Your task to perform on an android device: make emails show in primary in the gmail app Image 0: 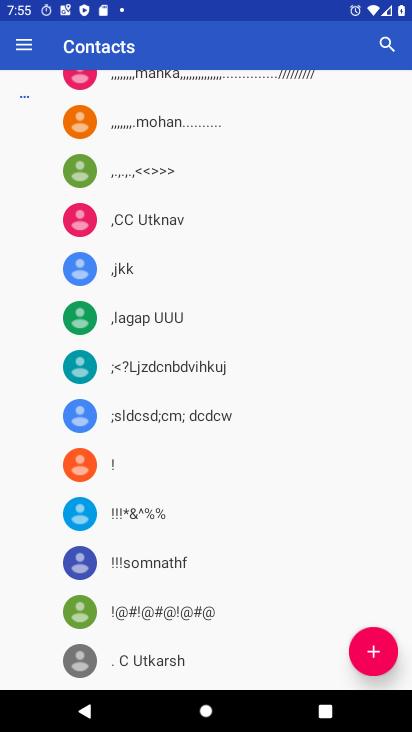
Step 0: press home button
Your task to perform on an android device: make emails show in primary in the gmail app Image 1: 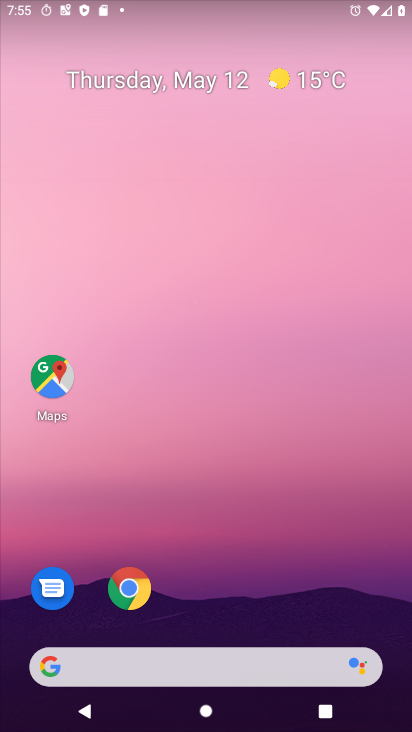
Step 1: drag from (176, 620) to (190, 264)
Your task to perform on an android device: make emails show in primary in the gmail app Image 2: 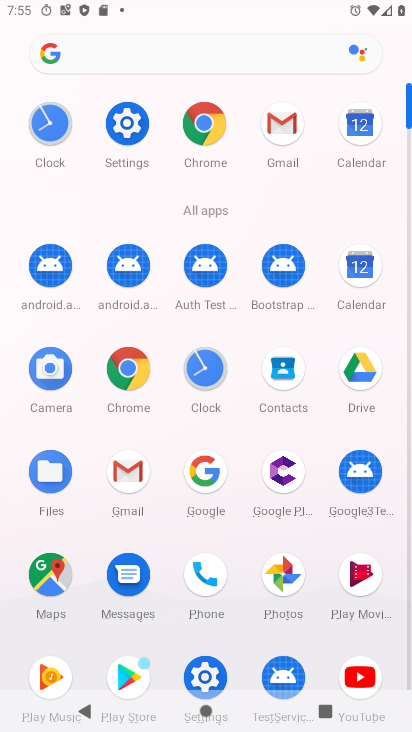
Step 2: click (278, 140)
Your task to perform on an android device: make emails show in primary in the gmail app Image 3: 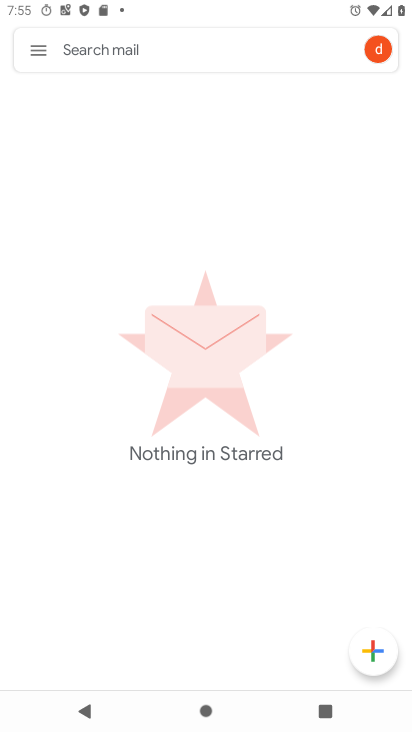
Step 3: click (31, 56)
Your task to perform on an android device: make emails show in primary in the gmail app Image 4: 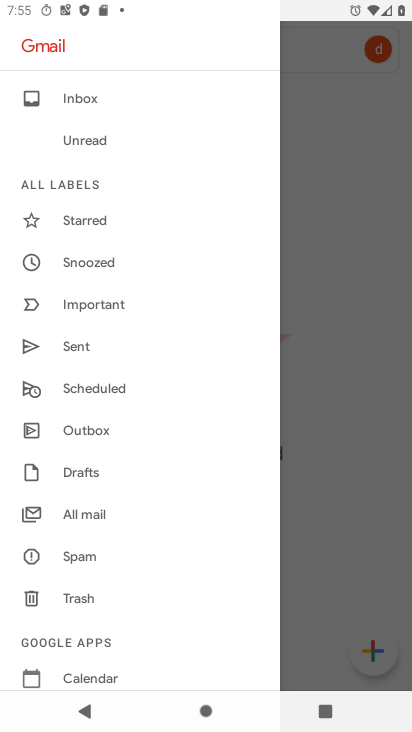
Step 4: drag from (108, 574) to (167, 185)
Your task to perform on an android device: make emails show in primary in the gmail app Image 5: 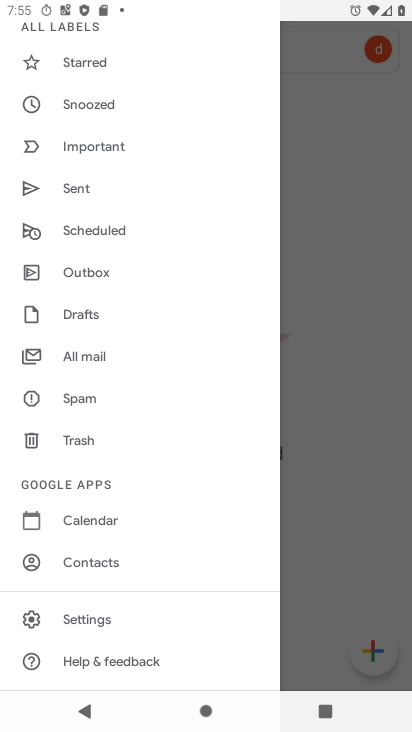
Step 5: click (83, 618)
Your task to perform on an android device: make emails show in primary in the gmail app Image 6: 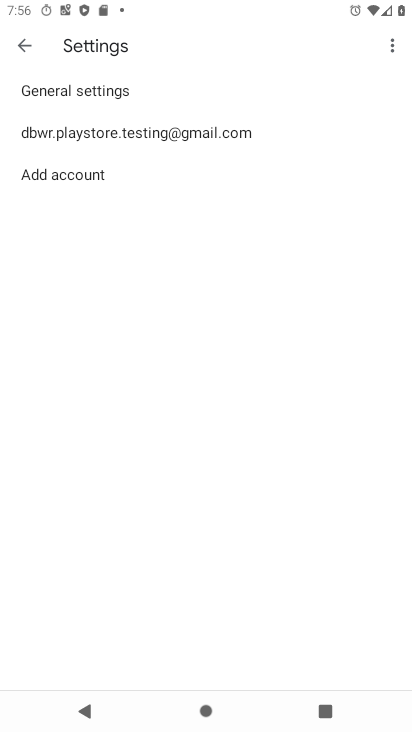
Step 6: click (64, 132)
Your task to perform on an android device: make emails show in primary in the gmail app Image 7: 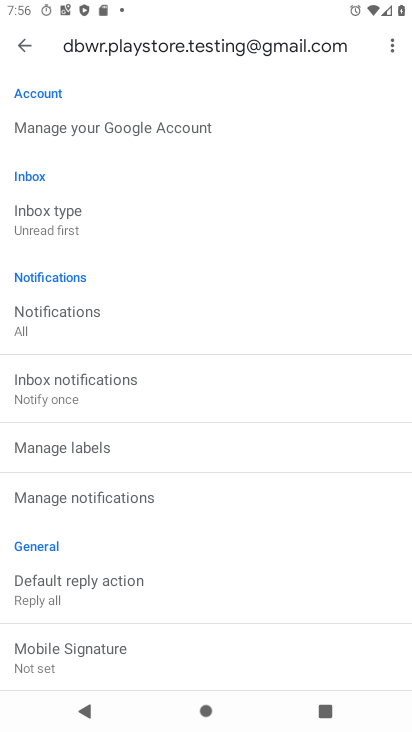
Step 7: drag from (142, 512) to (229, 442)
Your task to perform on an android device: make emails show in primary in the gmail app Image 8: 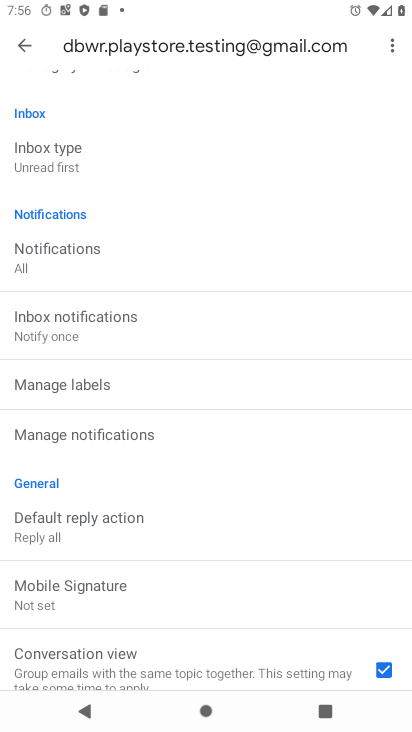
Step 8: drag from (96, 146) to (67, 495)
Your task to perform on an android device: make emails show in primary in the gmail app Image 9: 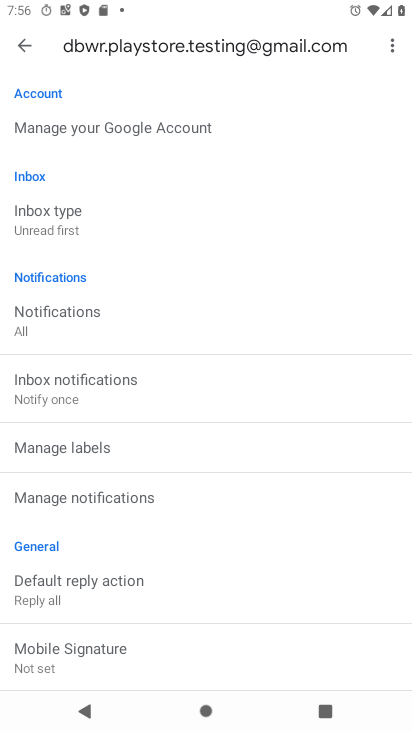
Step 9: click (69, 224)
Your task to perform on an android device: make emails show in primary in the gmail app Image 10: 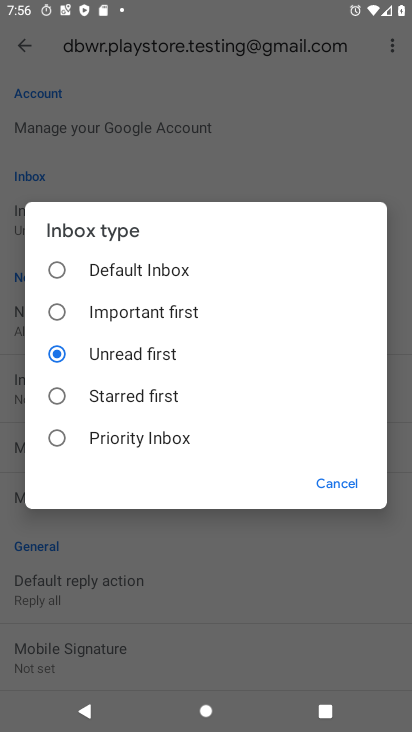
Step 10: click (113, 262)
Your task to perform on an android device: make emails show in primary in the gmail app Image 11: 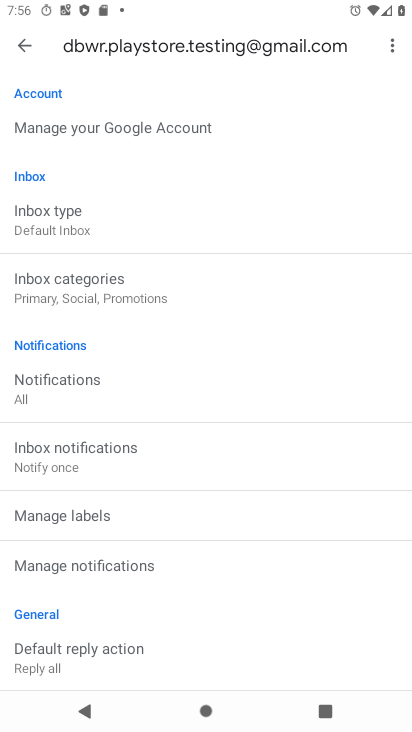
Step 11: click (25, 40)
Your task to perform on an android device: make emails show in primary in the gmail app Image 12: 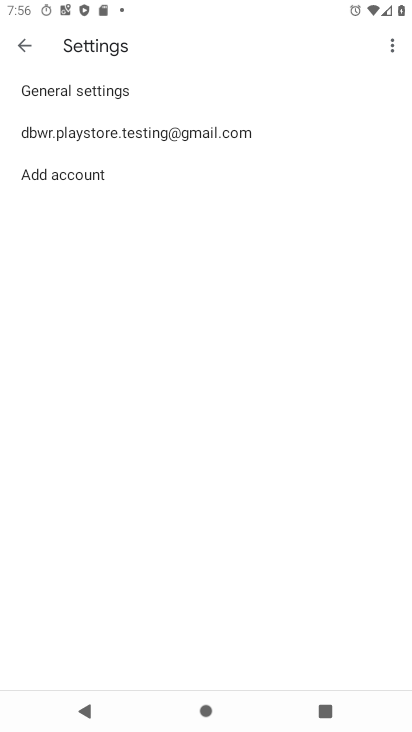
Step 12: click (25, 47)
Your task to perform on an android device: make emails show in primary in the gmail app Image 13: 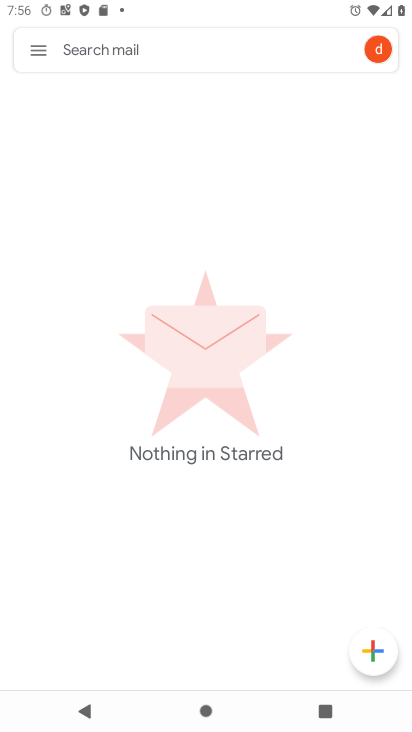
Step 13: click (25, 53)
Your task to perform on an android device: make emails show in primary in the gmail app Image 14: 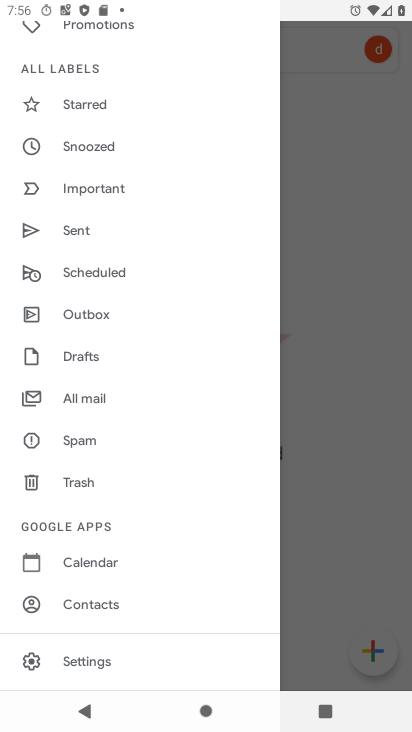
Step 14: drag from (117, 205) to (125, 389)
Your task to perform on an android device: make emails show in primary in the gmail app Image 15: 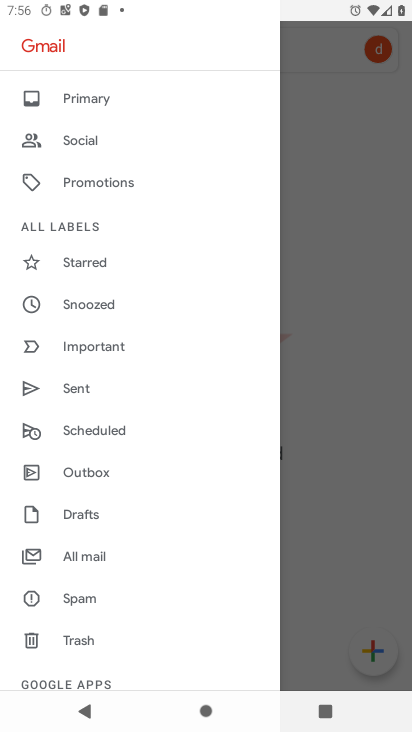
Step 15: click (65, 96)
Your task to perform on an android device: make emails show in primary in the gmail app Image 16: 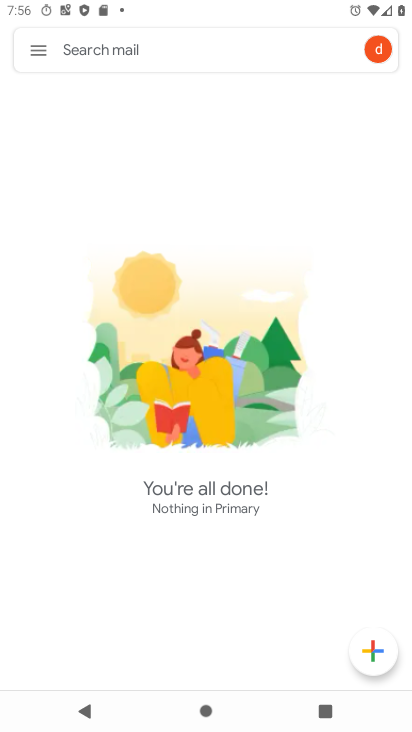
Step 16: task complete